Your task to perform on an android device: Open ESPN.com Image 0: 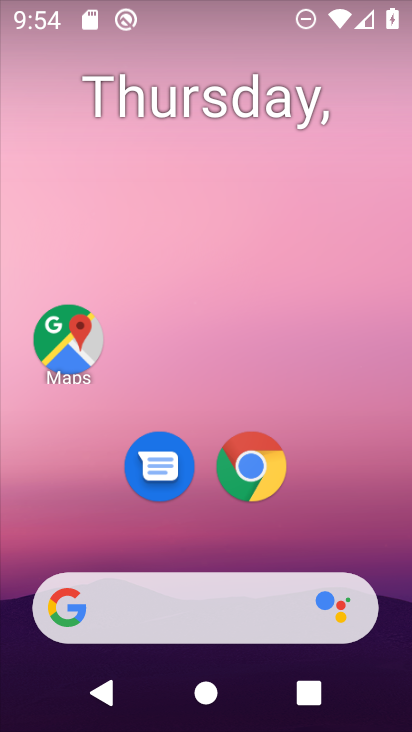
Step 0: drag from (168, 618) to (218, 76)
Your task to perform on an android device: Open ESPN.com Image 1: 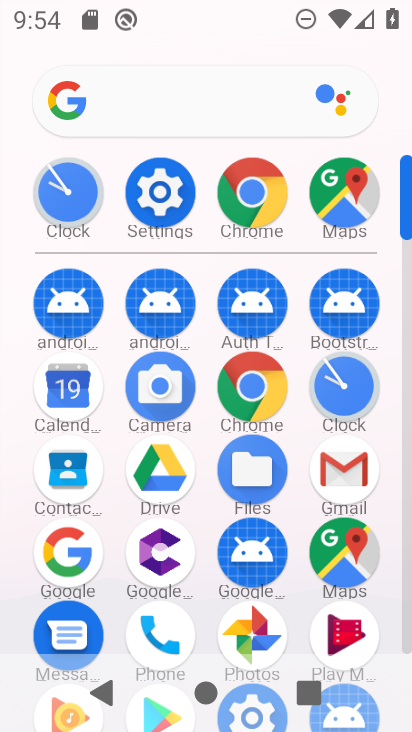
Step 1: click (268, 390)
Your task to perform on an android device: Open ESPN.com Image 2: 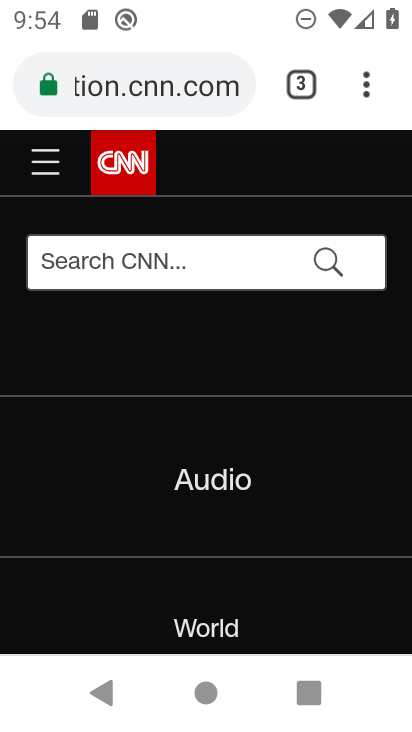
Step 2: click (193, 92)
Your task to perform on an android device: Open ESPN.com Image 3: 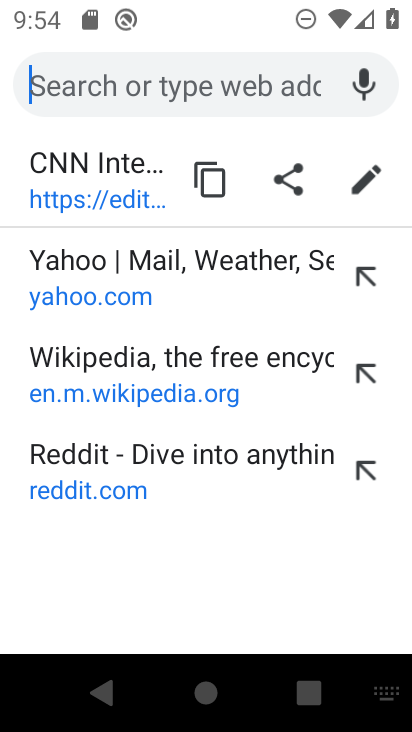
Step 3: type "espn.com"
Your task to perform on an android device: Open ESPN.com Image 4: 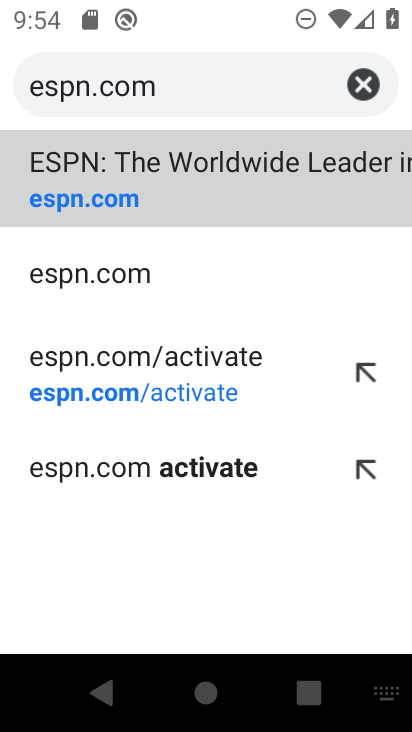
Step 4: click (210, 203)
Your task to perform on an android device: Open ESPN.com Image 5: 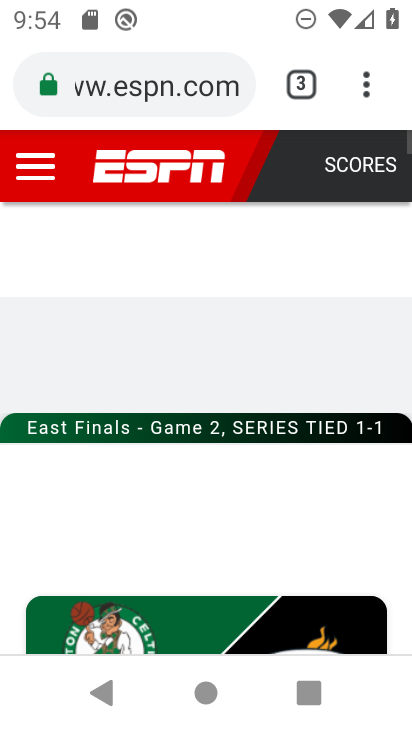
Step 5: task complete